Your task to perform on an android device: Clear the shopping cart on bestbuy.com. Add "jbl charge 4" to the cart on bestbuy.com, then select checkout. Image 0: 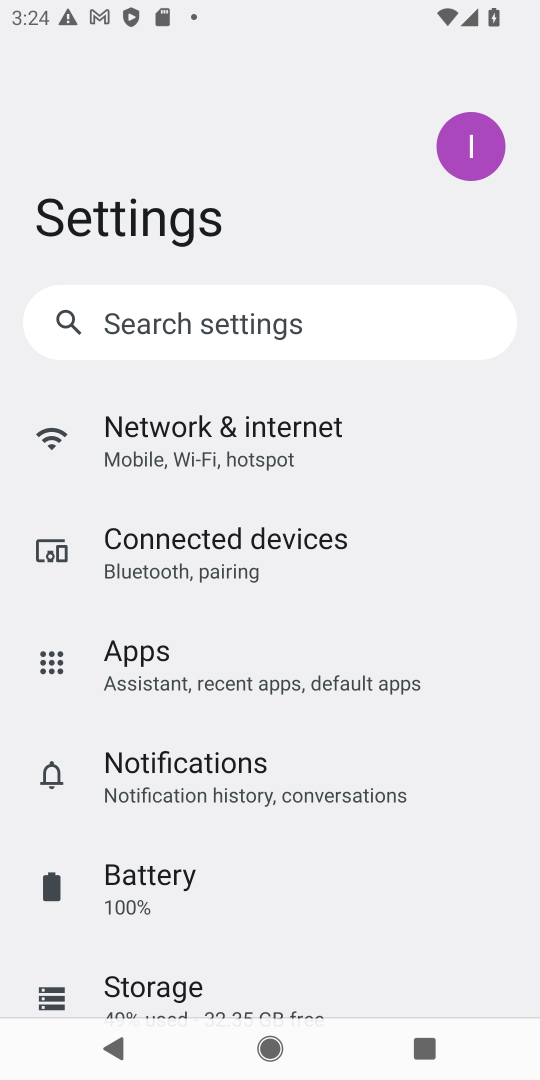
Step 0: press home button
Your task to perform on an android device: Clear the shopping cart on bestbuy.com. Add "jbl charge 4" to the cart on bestbuy.com, then select checkout. Image 1: 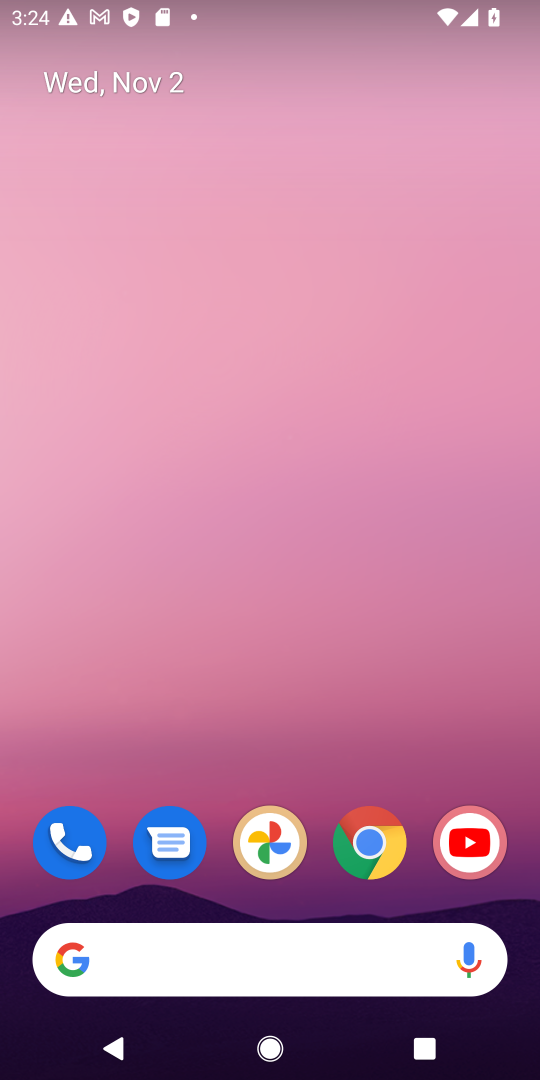
Step 1: click (371, 854)
Your task to perform on an android device: Clear the shopping cart on bestbuy.com. Add "jbl charge 4" to the cart on bestbuy.com, then select checkout. Image 2: 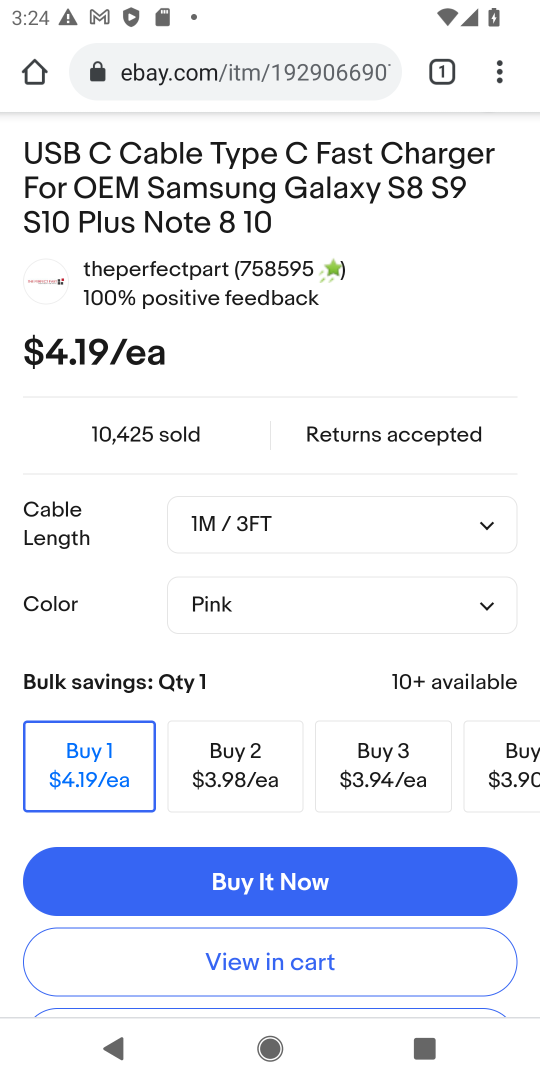
Step 2: click (253, 75)
Your task to perform on an android device: Clear the shopping cart on bestbuy.com. Add "jbl charge 4" to the cart on bestbuy.com, then select checkout. Image 3: 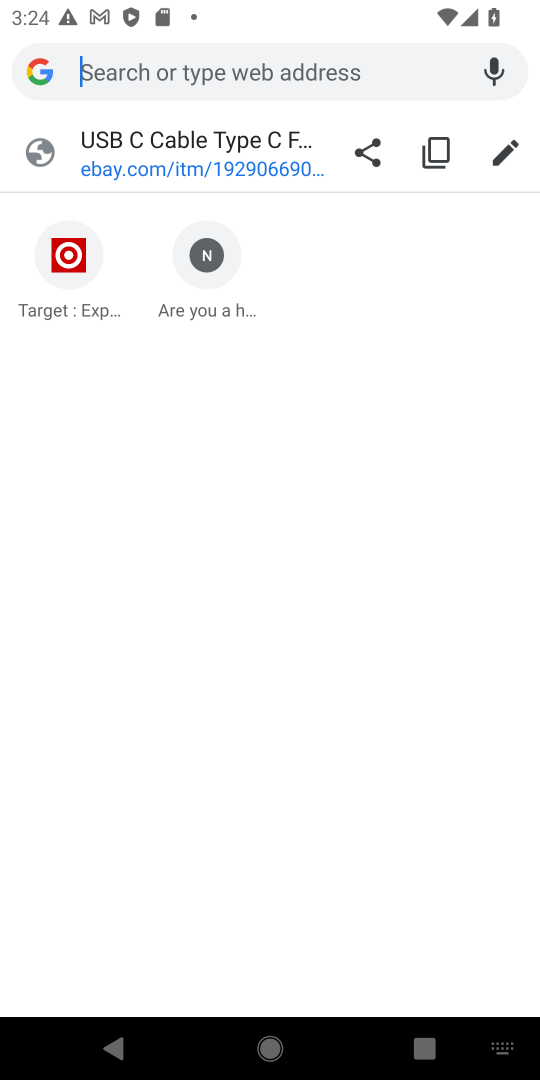
Step 3: type "bestbuy"
Your task to perform on an android device: Clear the shopping cart on bestbuy.com. Add "jbl charge 4" to the cart on bestbuy.com, then select checkout. Image 4: 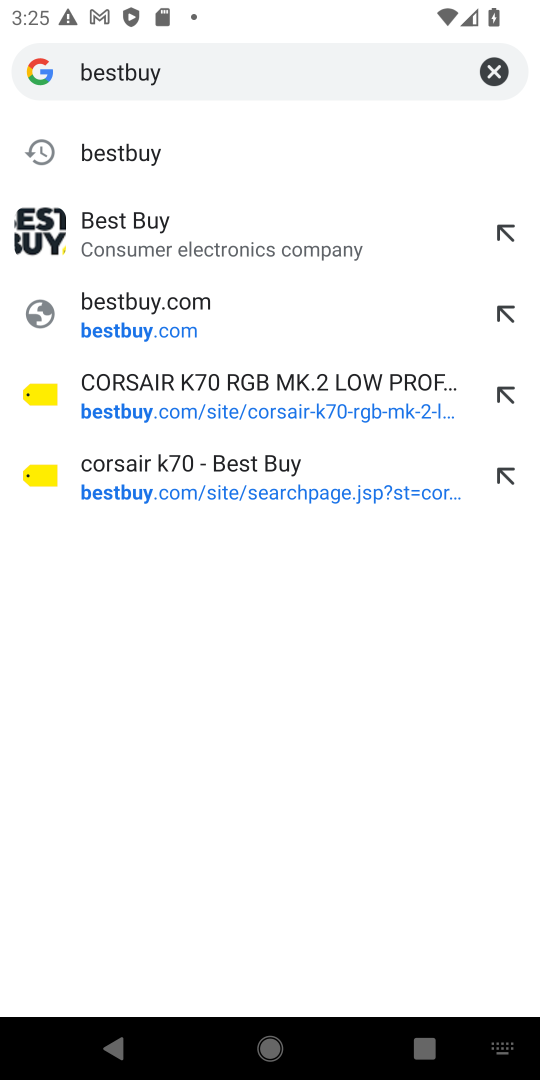
Step 4: click (146, 160)
Your task to perform on an android device: Clear the shopping cart on bestbuy.com. Add "jbl charge 4" to the cart on bestbuy.com, then select checkout. Image 5: 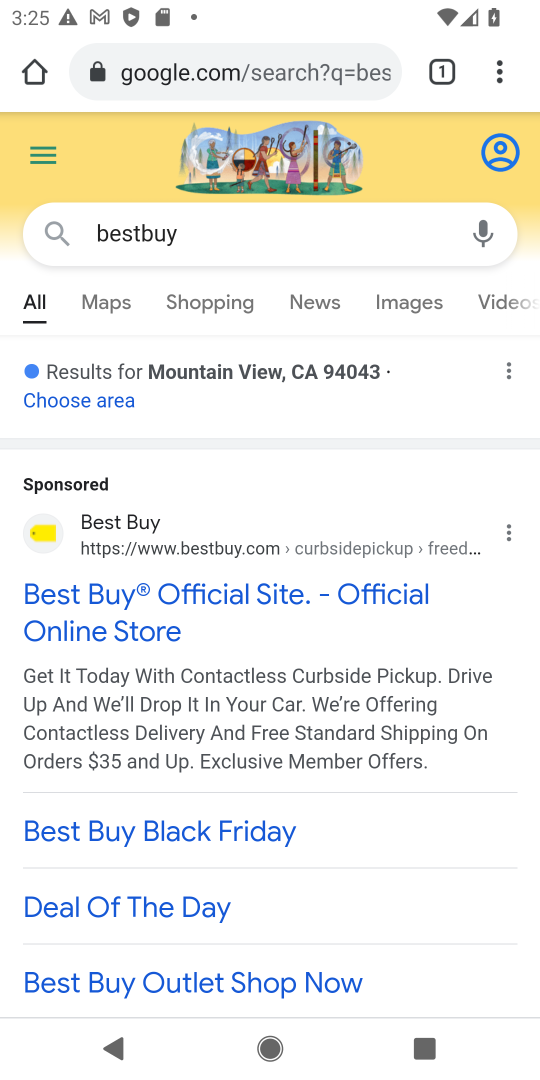
Step 5: click (172, 593)
Your task to perform on an android device: Clear the shopping cart on bestbuy.com. Add "jbl charge 4" to the cart on bestbuy.com, then select checkout. Image 6: 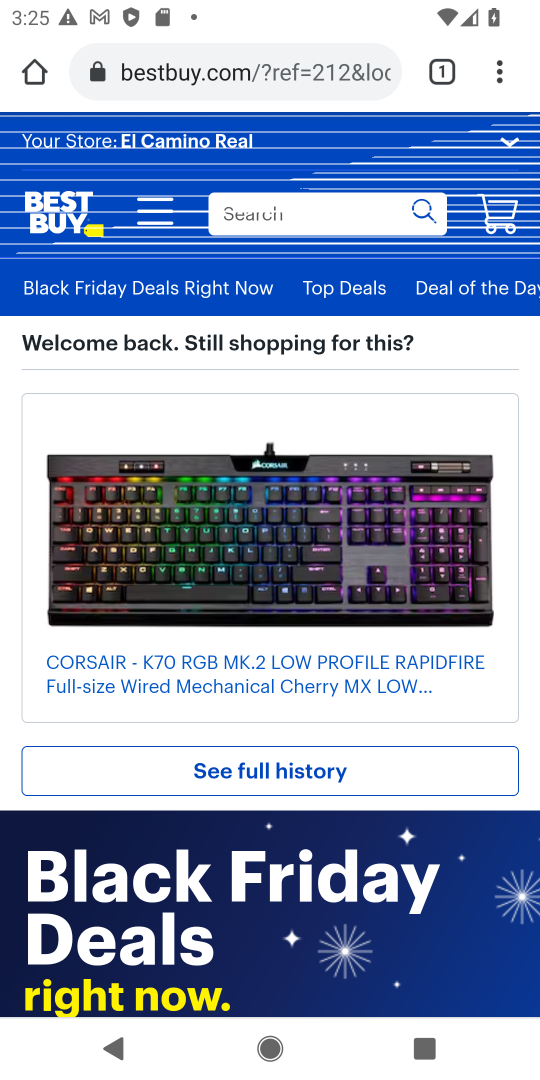
Step 6: click (495, 218)
Your task to perform on an android device: Clear the shopping cart on bestbuy.com. Add "jbl charge 4" to the cart on bestbuy.com, then select checkout. Image 7: 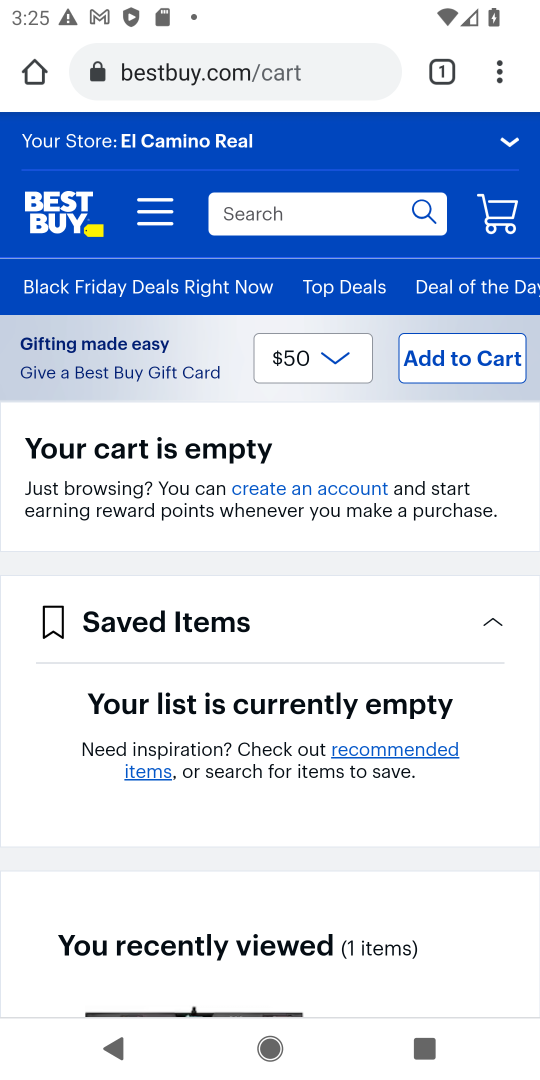
Step 7: click (329, 214)
Your task to perform on an android device: Clear the shopping cart on bestbuy.com. Add "jbl charge 4" to the cart on bestbuy.com, then select checkout. Image 8: 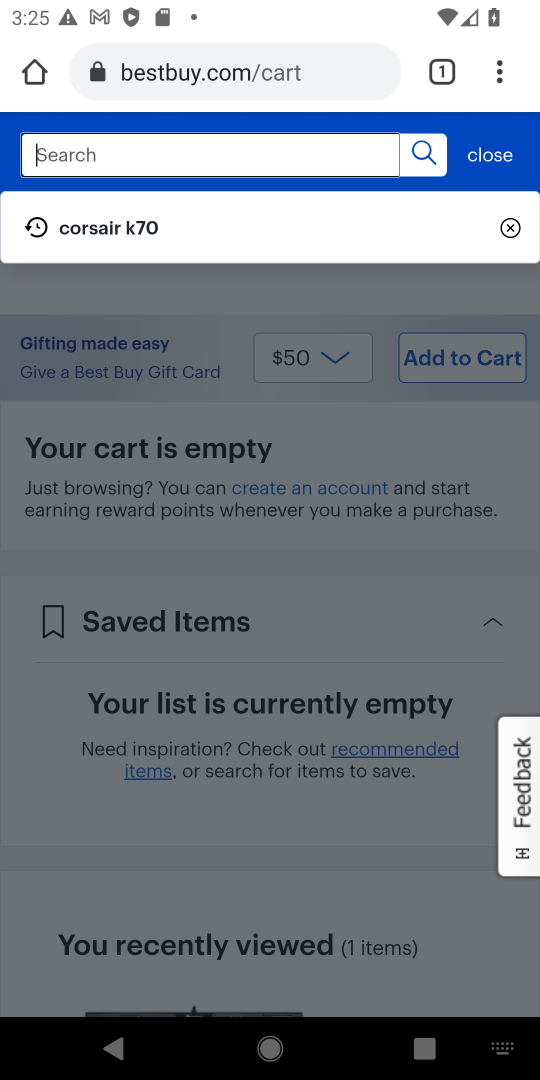
Step 8: type "jbl charge 4"
Your task to perform on an android device: Clear the shopping cart on bestbuy.com. Add "jbl charge 4" to the cart on bestbuy.com, then select checkout. Image 9: 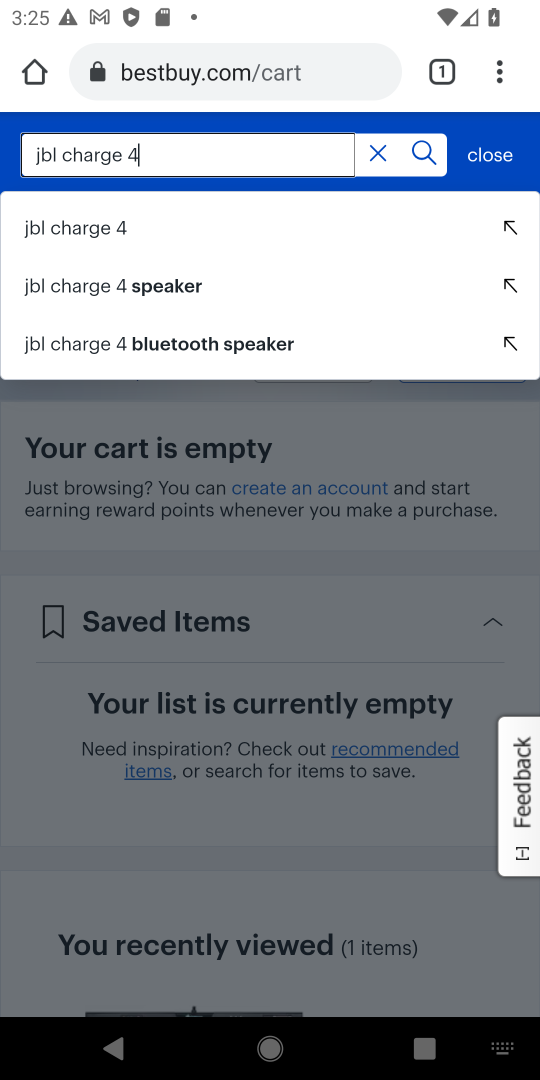
Step 9: click (125, 232)
Your task to perform on an android device: Clear the shopping cart on bestbuy.com. Add "jbl charge 4" to the cart on bestbuy.com, then select checkout. Image 10: 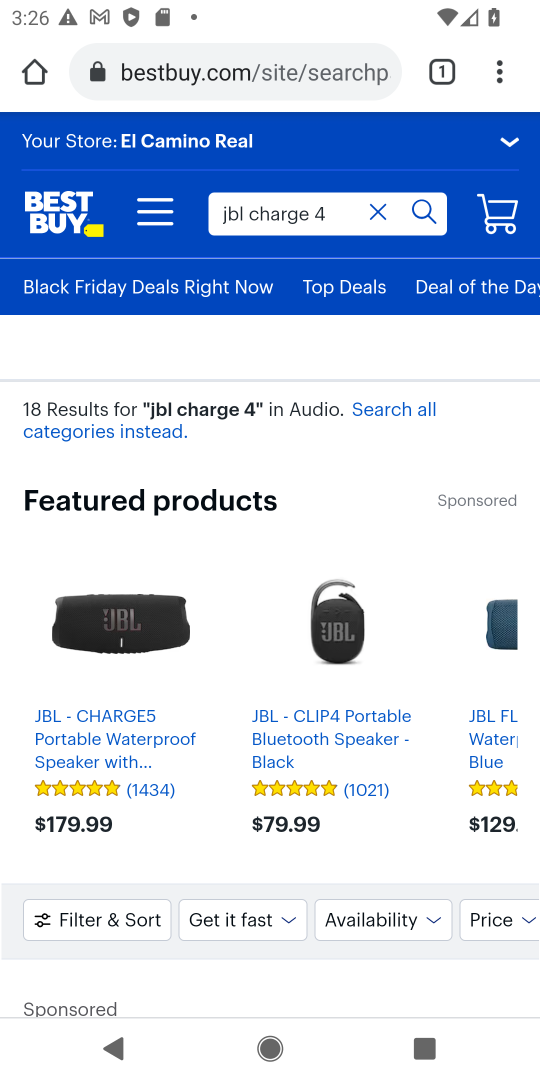
Step 10: drag from (323, 477) to (288, 170)
Your task to perform on an android device: Clear the shopping cart on bestbuy.com. Add "jbl charge 4" to the cart on bestbuy.com, then select checkout. Image 11: 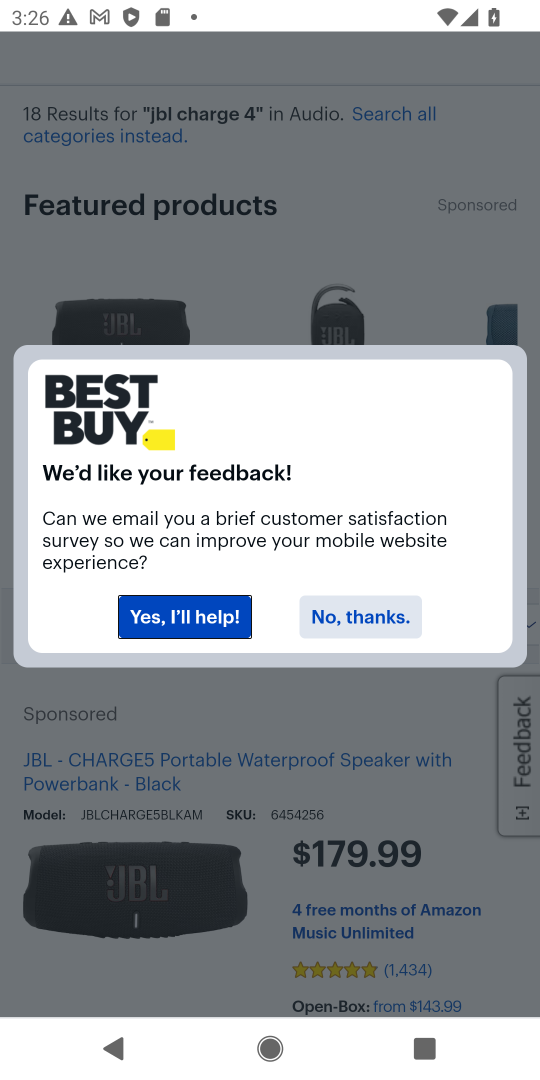
Step 11: click (337, 625)
Your task to perform on an android device: Clear the shopping cart on bestbuy.com. Add "jbl charge 4" to the cart on bestbuy.com, then select checkout. Image 12: 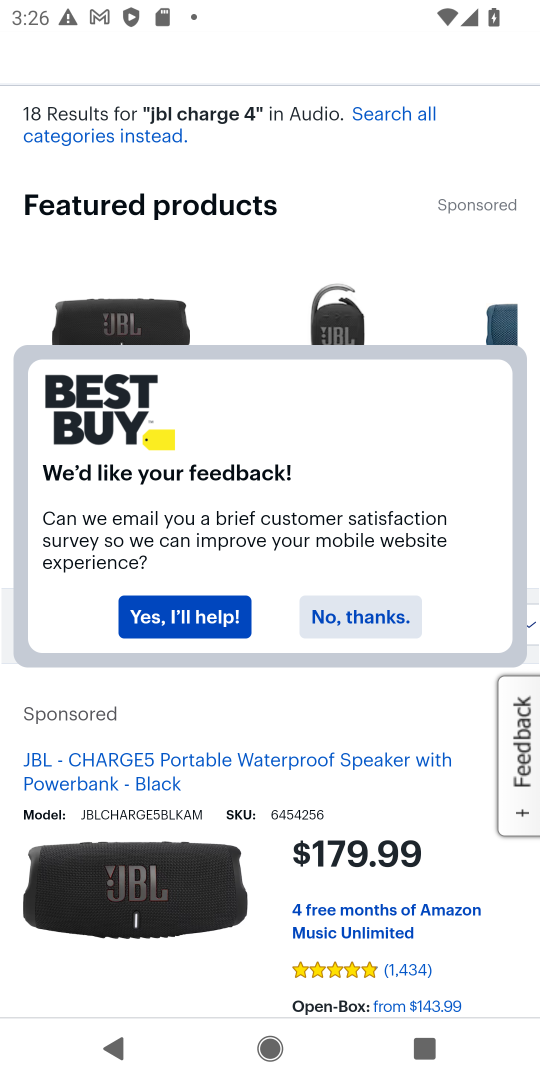
Step 12: task complete